Your task to perform on an android device: Open Amazon Image 0: 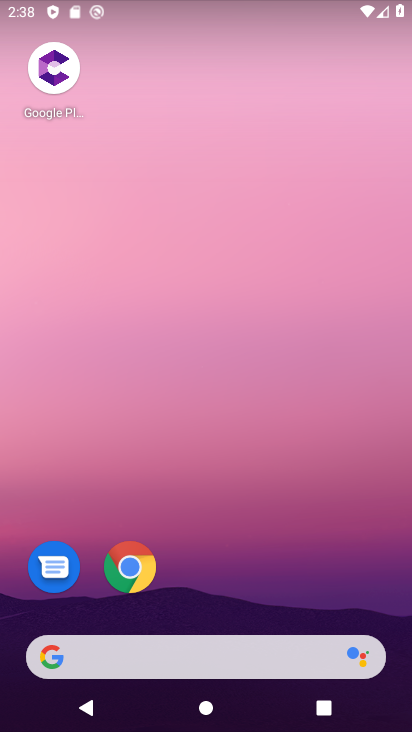
Step 0: click (127, 558)
Your task to perform on an android device: Open Amazon Image 1: 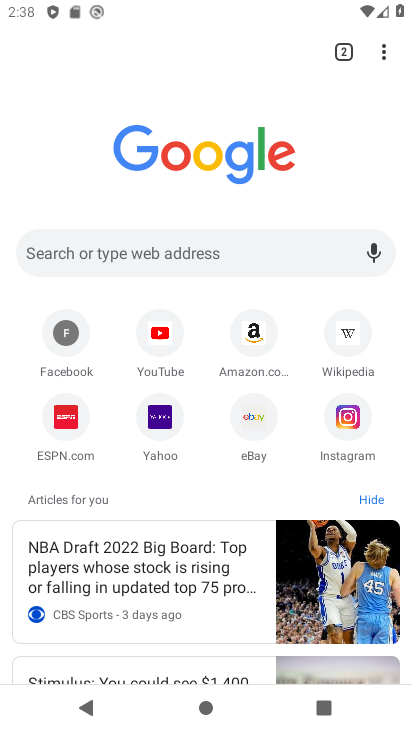
Step 1: click (254, 338)
Your task to perform on an android device: Open Amazon Image 2: 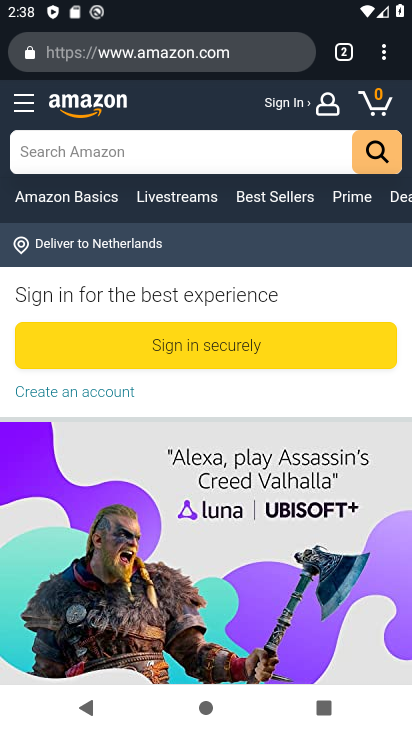
Step 2: task complete